Your task to perform on an android device: check google app version Image 0: 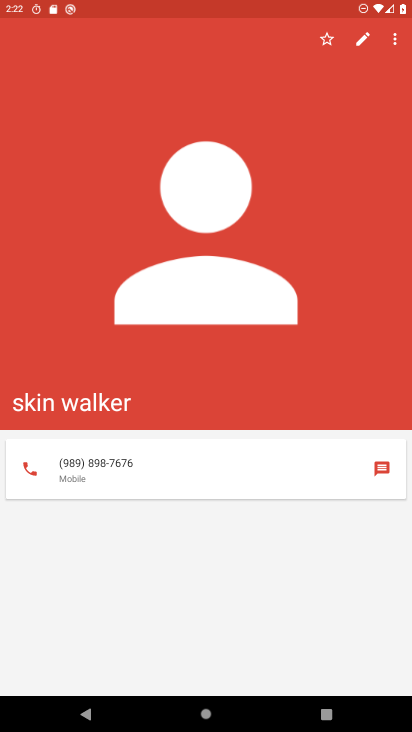
Step 0: press home button
Your task to perform on an android device: check google app version Image 1: 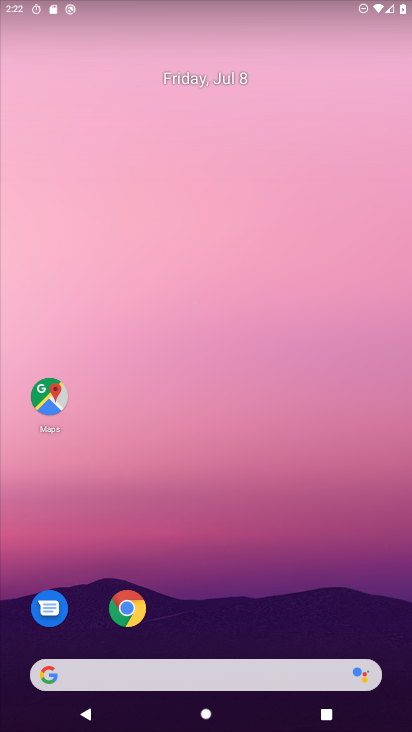
Step 1: drag from (242, 723) to (237, 111)
Your task to perform on an android device: check google app version Image 2: 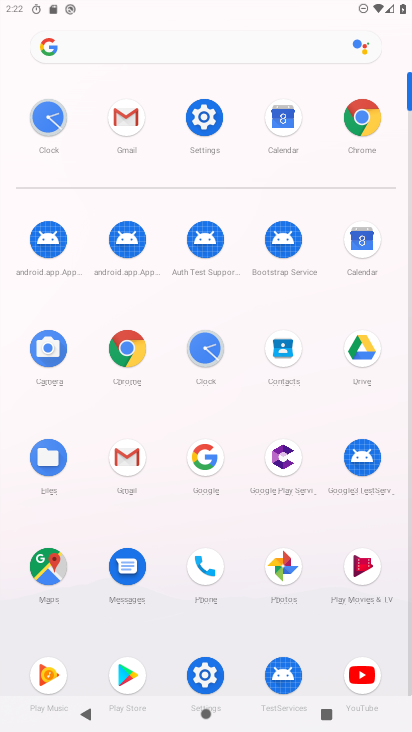
Step 2: click (203, 454)
Your task to perform on an android device: check google app version Image 3: 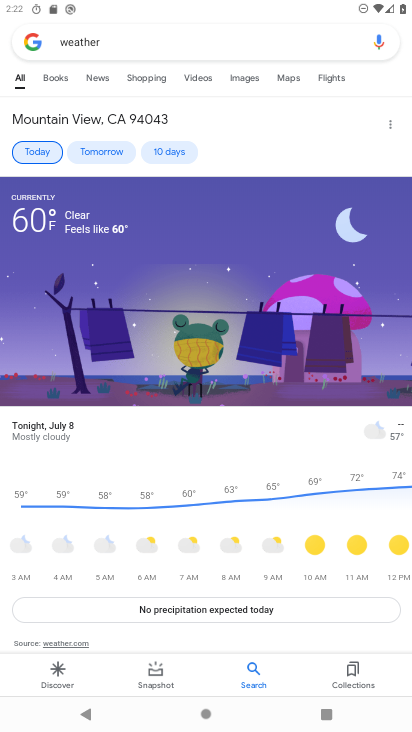
Step 3: click (58, 678)
Your task to perform on an android device: check google app version Image 4: 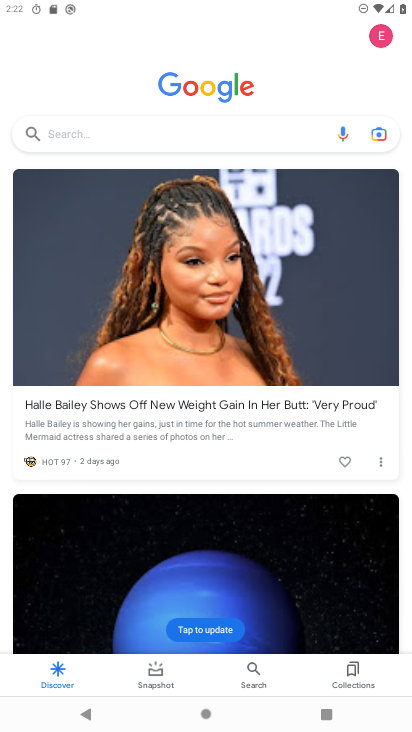
Step 4: click (380, 38)
Your task to perform on an android device: check google app version Image 5: 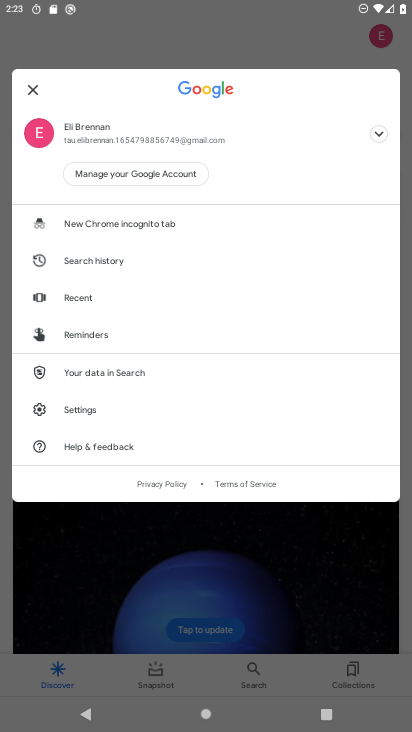
Step 5: click (74, 407)
Your task to perform on an android device: check google app version Image 6: 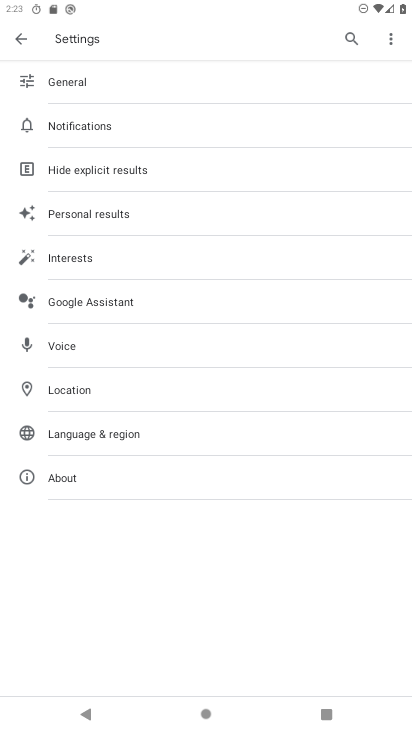
Step 6: click (62, 470)
Your task to perform on an android device: check google app version Image 7: 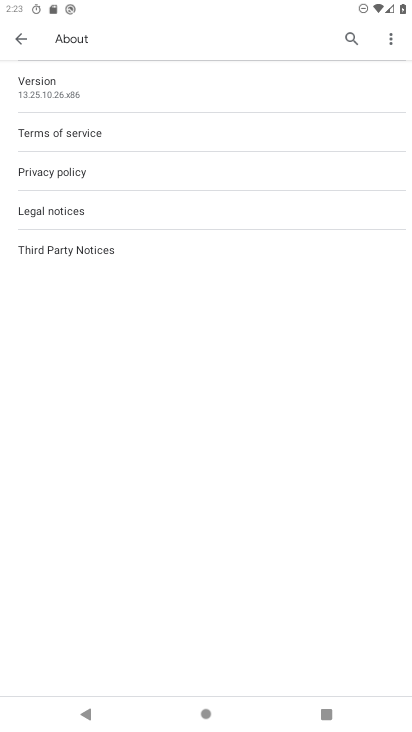
Step 7: task complete